Your task to perform on an android device: toggle show notifications on the lock screen Image 0: 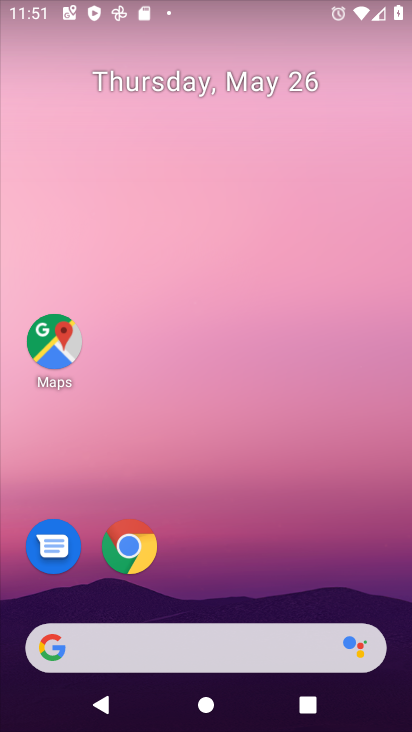
Step 0: drag from (202, 551) to (197, 117)
Your task to perform on an android device: toggle show notifications on the lock screen Image 1: 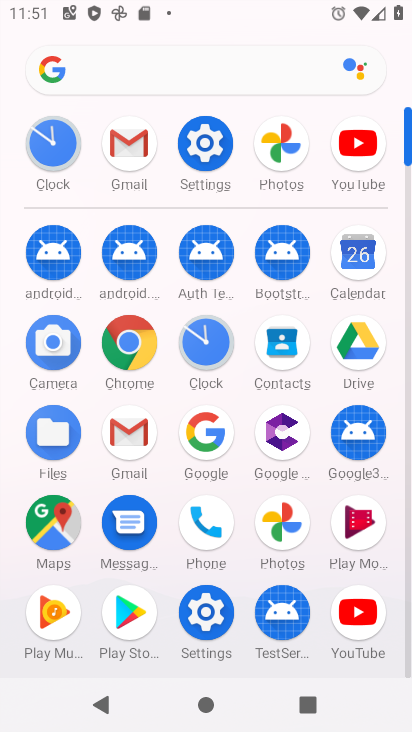
Step 1: click (204, 147)
Your task to perform on an android device: toggle show notifications on the lock screen Image 2: 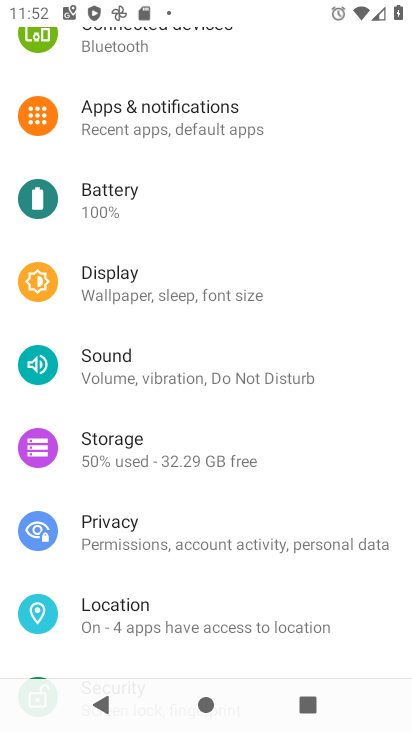
Step 2: click (206, 100)
Your task to perform on an android device: toggle show notifications on the lock screen Image 3: 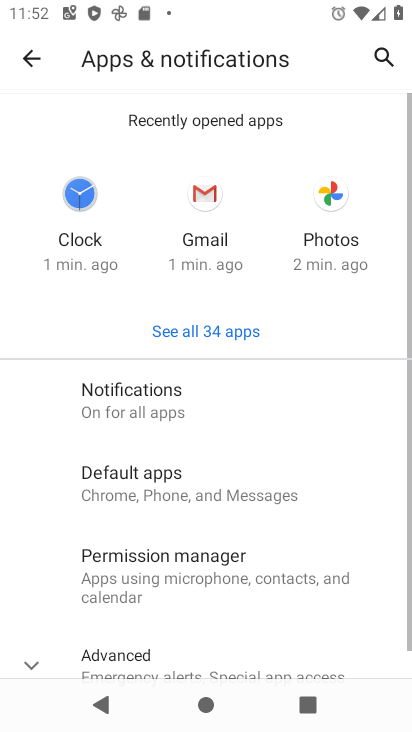
Step 3: click (155, 394)
Your task to perform on an android device: toggle show notifications on the lock screen Image 4: 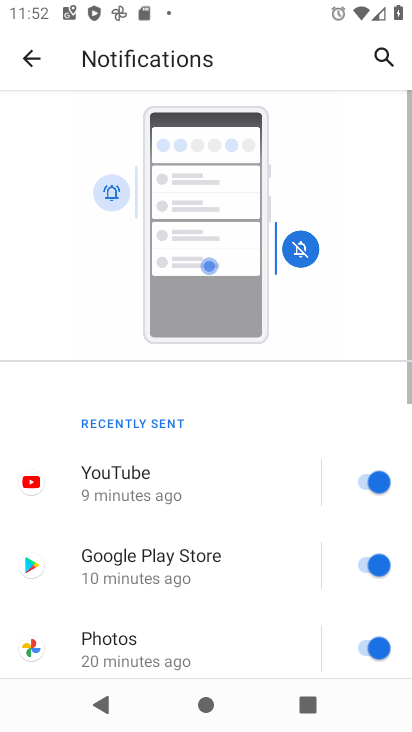
Step 4: drag from (207, 548) to (226, 84)
Your task to perform on an android device: toggle show notifications on the lock screen Image 5: 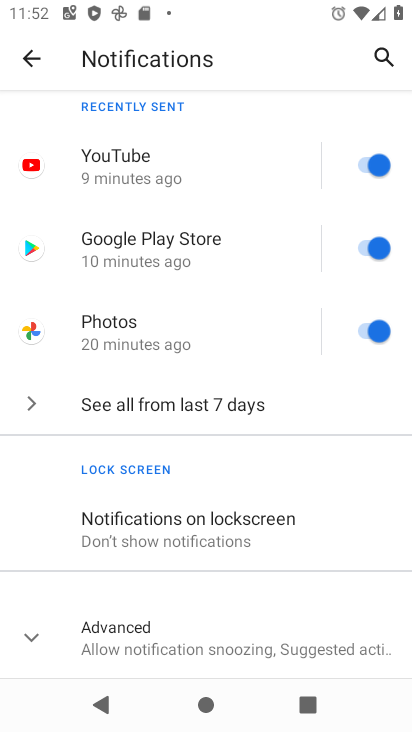
Step 5: click (152, 526)
Your task to perform on an android device: toggle show notifications on the lock screen Image 6: 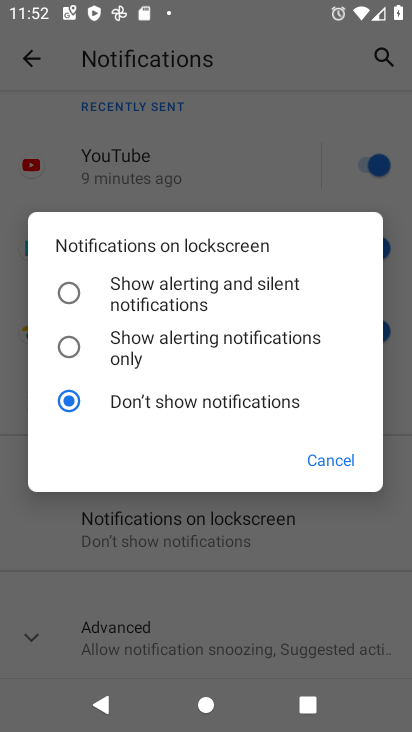
Step 6: click (75, 293)
Your task to perform on an android device: toggle show notifications on the lock screen Image 7: 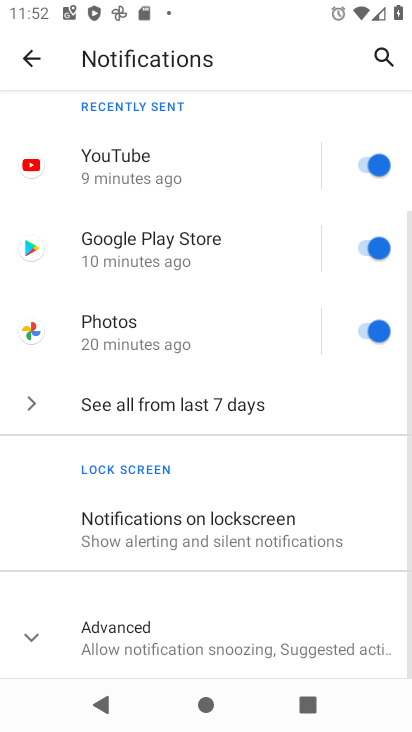
Step 7: task complete